Your task to perform on an android device: all mails in gmail Image 0: 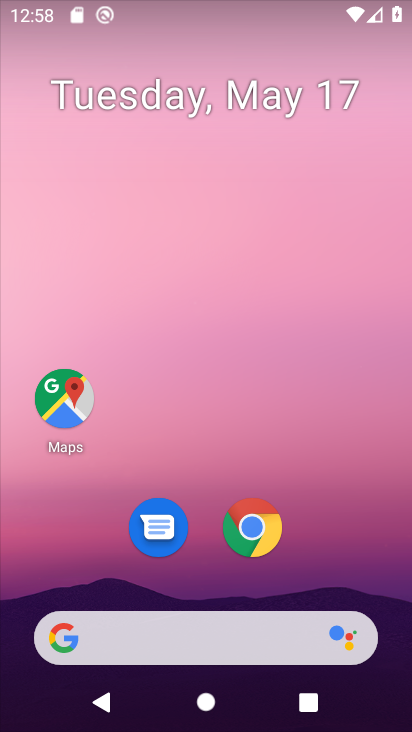
Step 0: drag from (81, 622) to (255, 91)
Your task to perform on an android device: all mails in gmail Image 1: 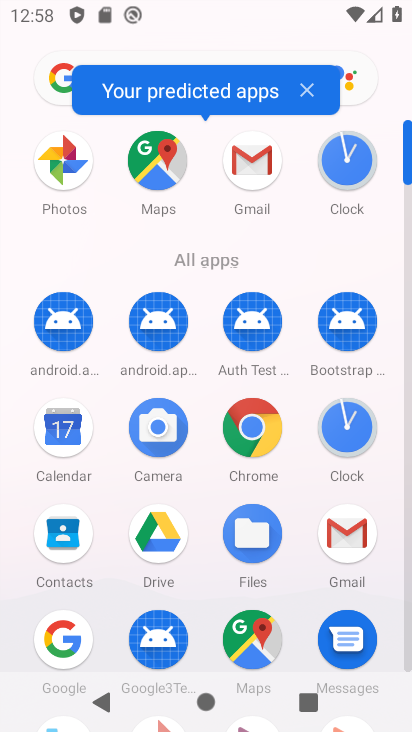
Step 1: drag from (127, 581) to (236, 313)
Your task to perform on an android device: all mails in gmail Image 2: 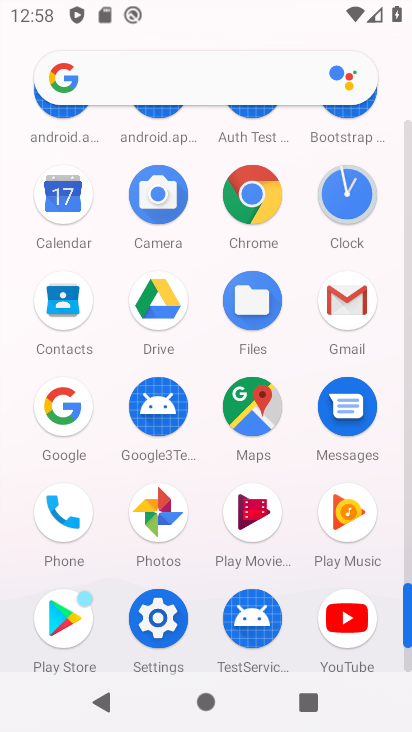
Step 2: click (362, 292)
Your task to perform on an android device: all mails in gmail Image 3: 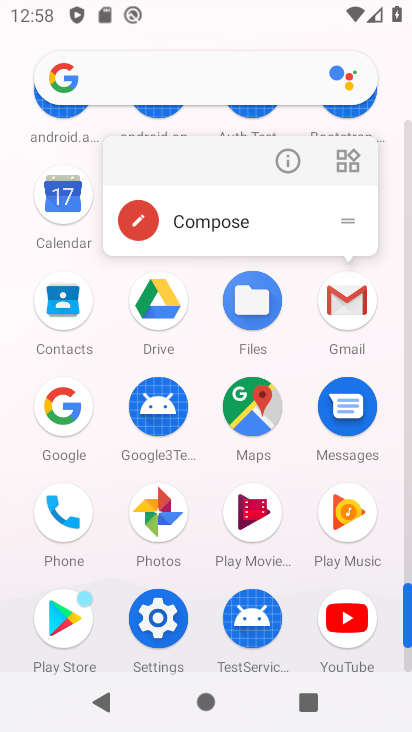
Step 3: click (345, 304)
Your task to perform on an android device: all mails in gmail Image 4: 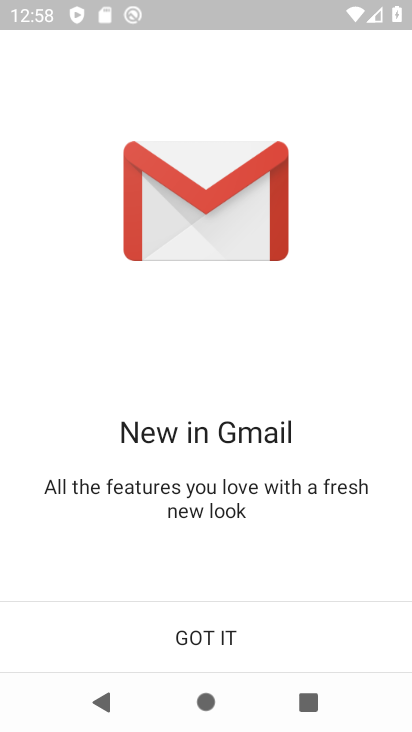
Step 4: click (247, 654)
Your task to perform on an android device: all mails in gmail Image 5: 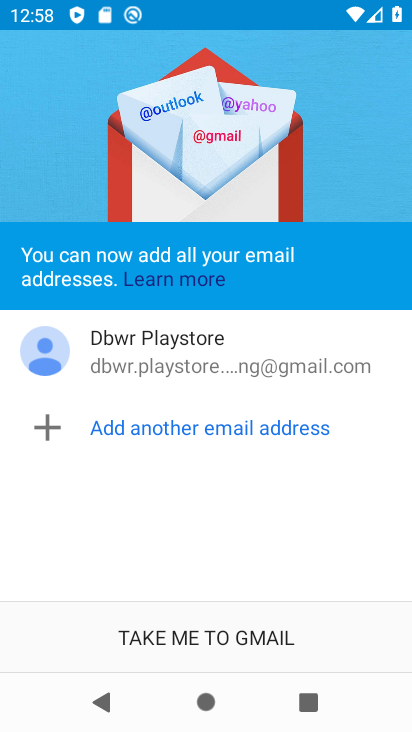
Step 5: click (246, 653)
Your task to perform on an android device: all mails in gmail Image 6: 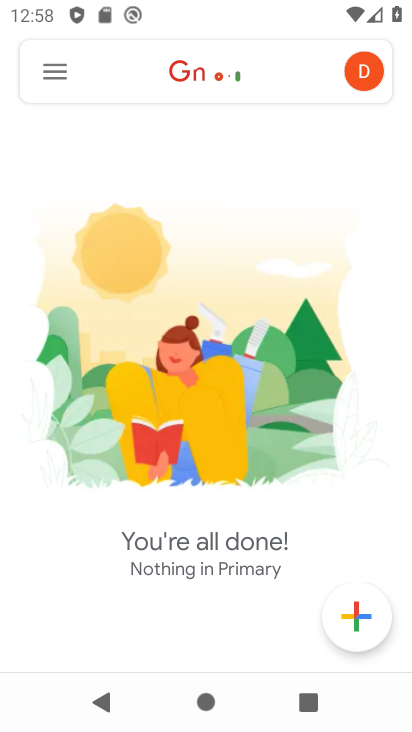
Step 6: click (75, 87)
Your task to perform on an android device: all mails in gmail Image 7: 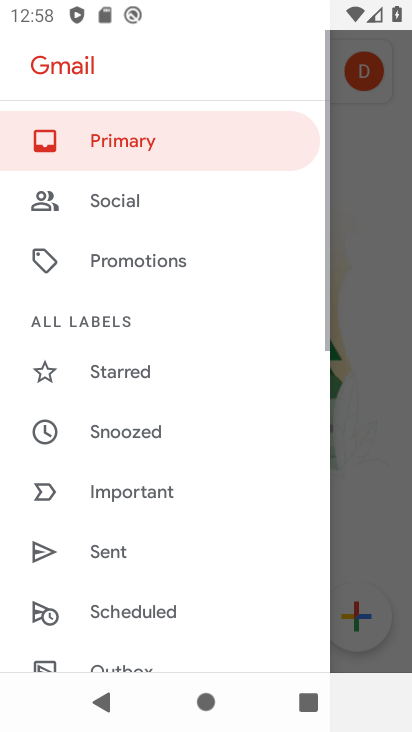
Step 7: drag from (131, 597) to (239, 206)
Your task to perform on an android device: all mails in gmail Image 8: 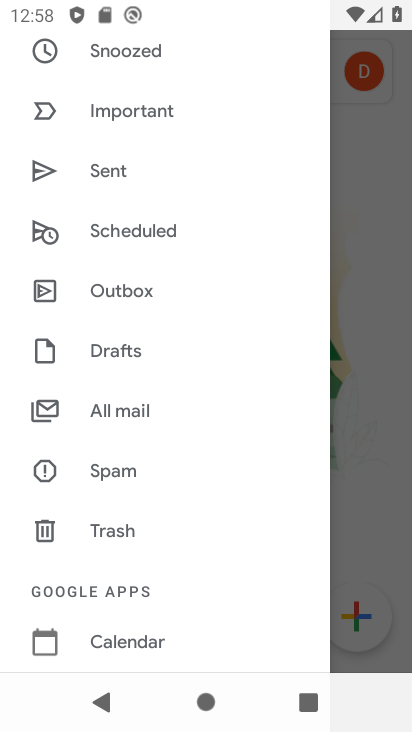
Step 8: click (149, 419)
Your task to perform on an android device: all mails in gmail Image 9: 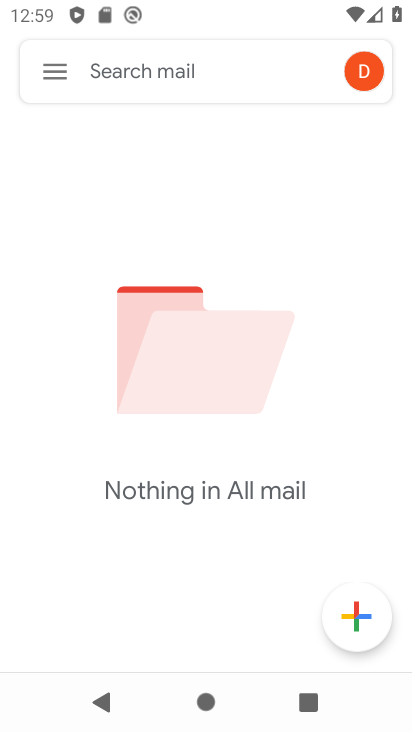
Step 9: task complete